Your task to perform on an android device: turn on translation in the chrome app Image 0: 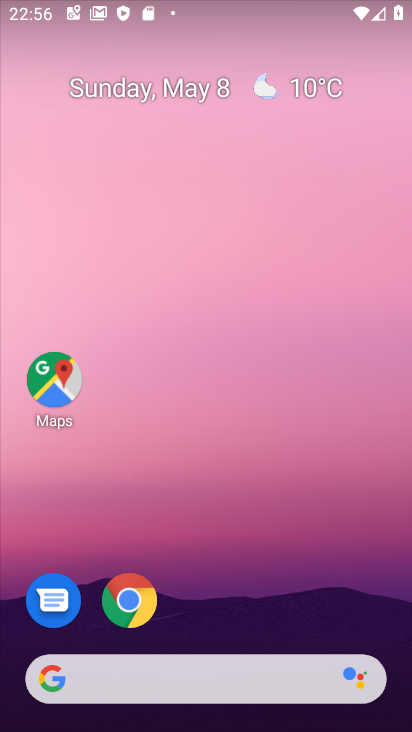
Step 0: click (138, 598)
Your task to perform on an android device: turn on translation in the chrome app Image 1: 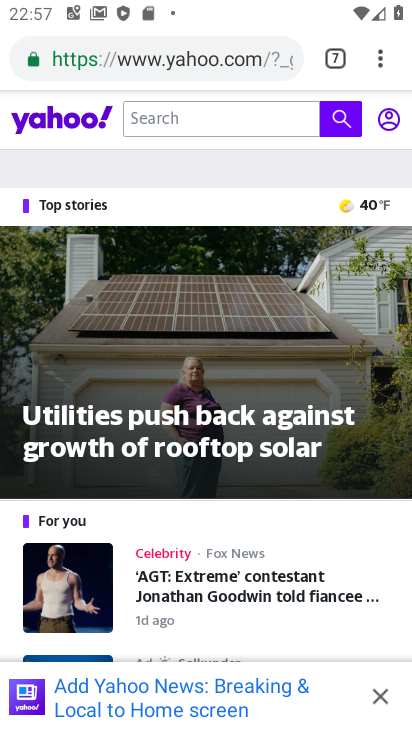
Step 1: click (367, 50)
Your task to perform on an android device: turn on translation in the chrome app Image 2: 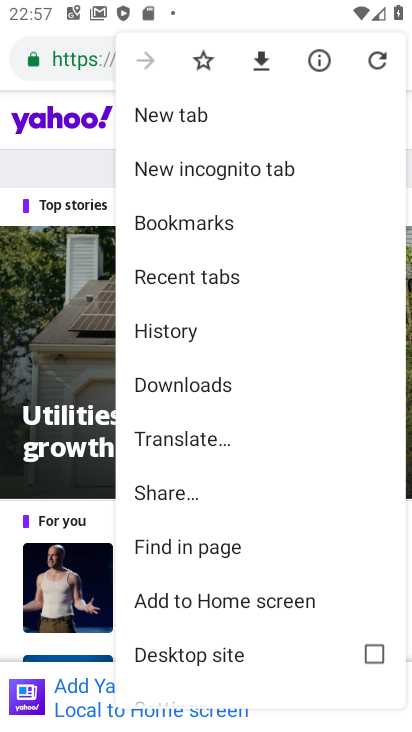
Step 2: click (165, 447)
Your task to perform on an android device: turn on translation in the chrome app Image 3: 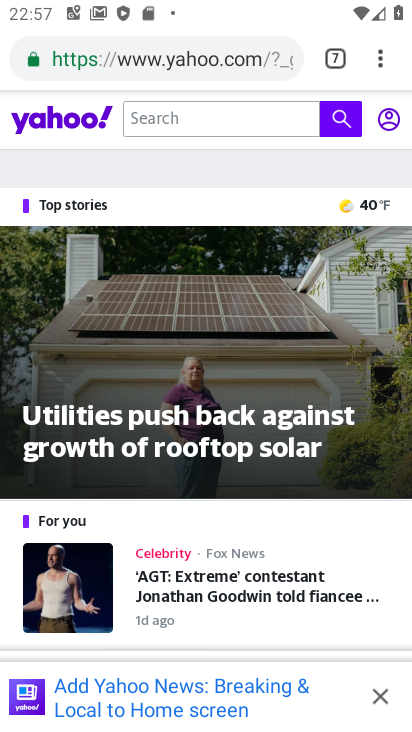
Step 3: click (390, 67)
Your task to perform on an android device: turn on translation in the chrome app Image 4: 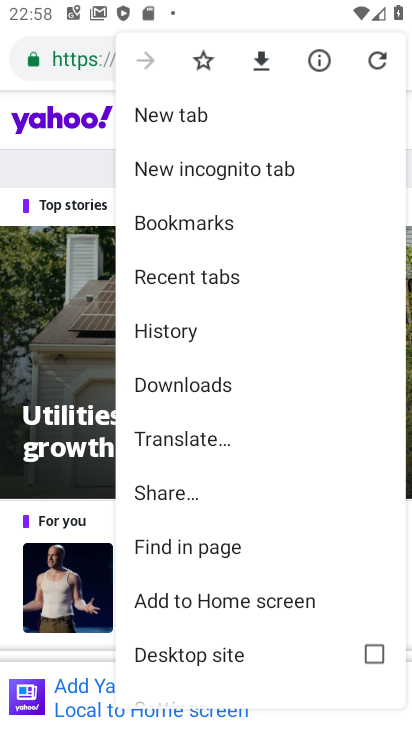
Step 4: drag from (229, 570) to (243, 237)
Your task to perform on an android device: turn on translation in the chrome app Image 5: 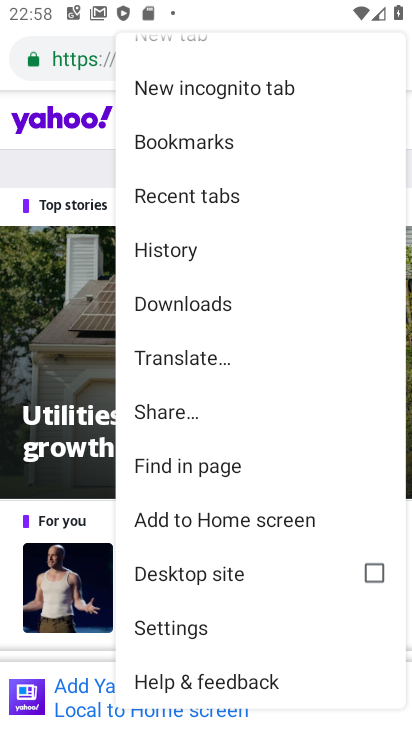
Step 5: click (164, 625)
Your task to perform on an android device: turn on translation in the chrome app Image 6: 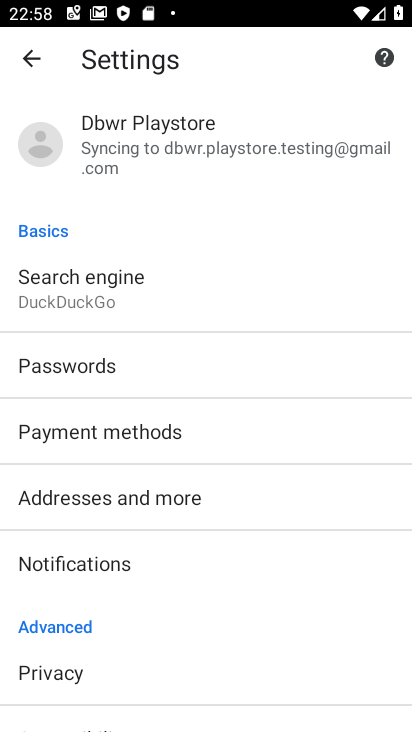
Step 6: drag from (164, 625) to (169, 176)
Your task to perform on an android device: turn on translation in the chrome app Image 7: 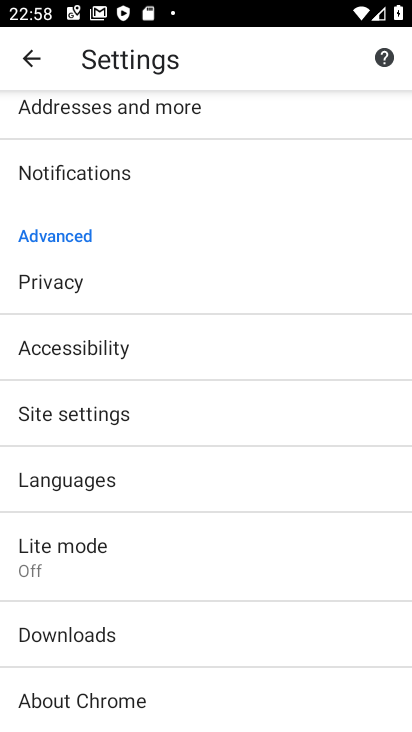
Step 7: click (92, 479)
Your task to perform on an android device: turn on translation in the chrome app Image 8: 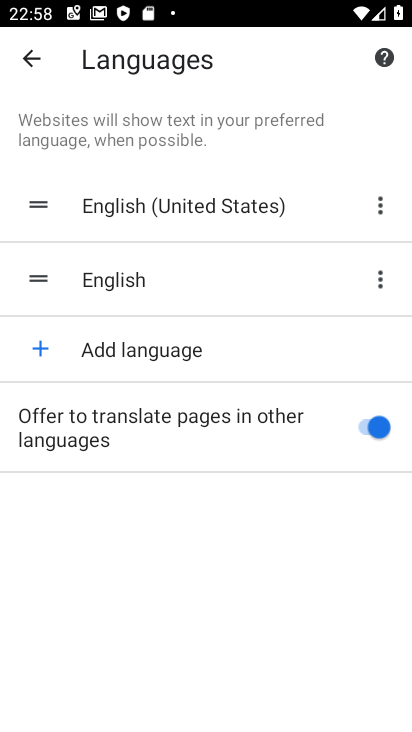
Step 8: task complete